Your task to perform on an android device: Open the phone app and click the voicemail tab. Image 0: 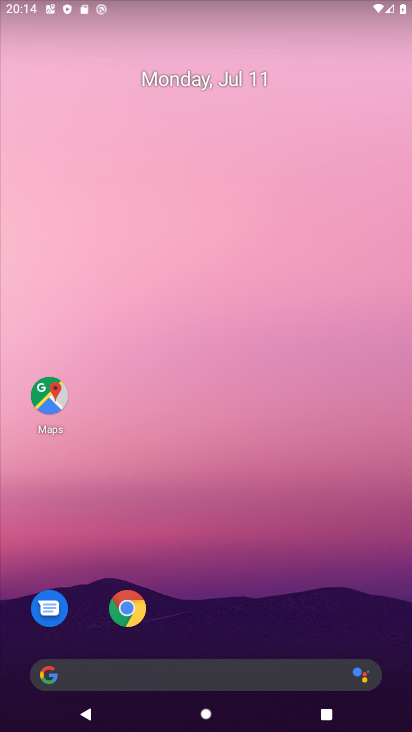
Step 0: drag from (245, 614) to (223, 28)
Your task to perform on an android device: Open the phone app and click the voicemail tab. Image 1: 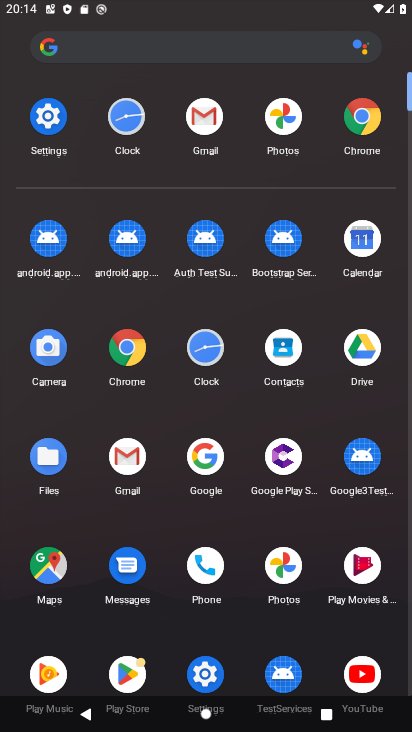
Step 1: click (204, 594)
Your task to perform on an android device: Open the phone app and click the voicemail tab. Image 2: 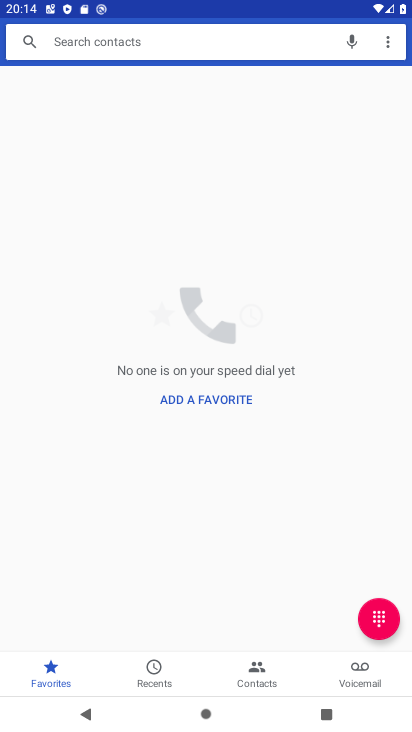
Step 2: click (354, 672)
Your task to perform on an android device: Open the phone app and click the voicemail tab. Image 3: 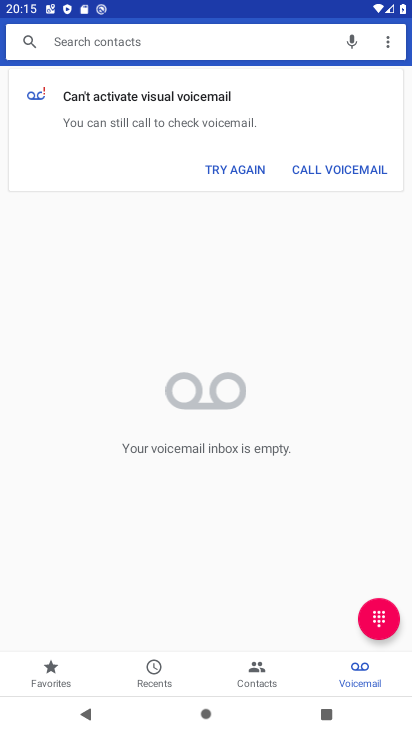
Step 3: task complete